Your task to perform on an android device: turn on bluetooth scan Image 0: 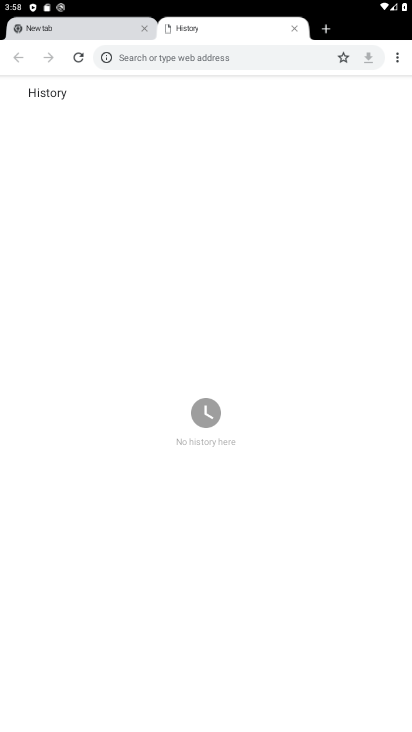
Step 0: press home button
Your task to perform on an android device: turn on bluetooth scan Image 1: 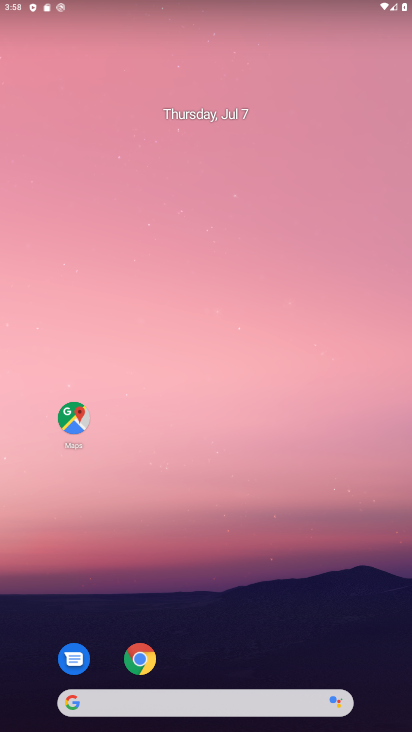
Step 1: drag from (221, 635) to (246, 0)
Your task to perform on an android device: turn on bluetooth scan Image 2: 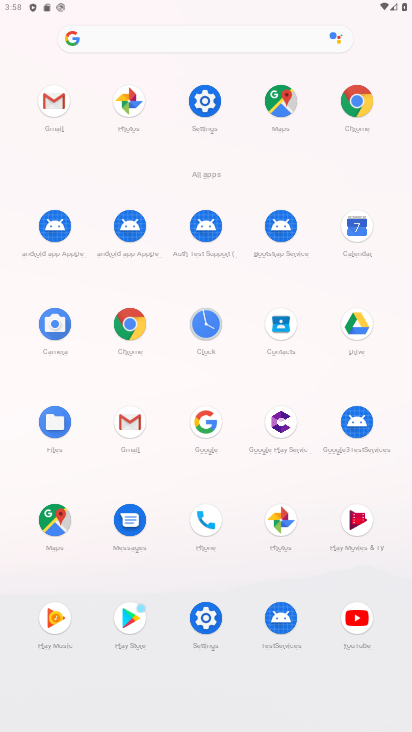
Step 2: click (215, 621)
Your task to perform on an android device: turn on bluetooth scan Image 3: 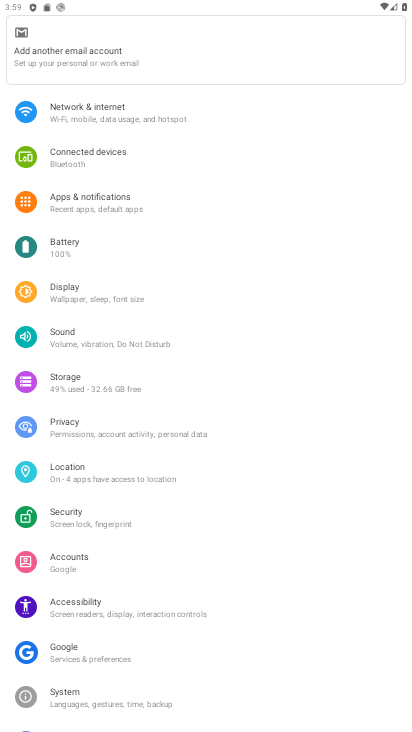
Step 3: click (117, 472)
Your task to perform on an android device: turn on bluetooth scan Image 4: 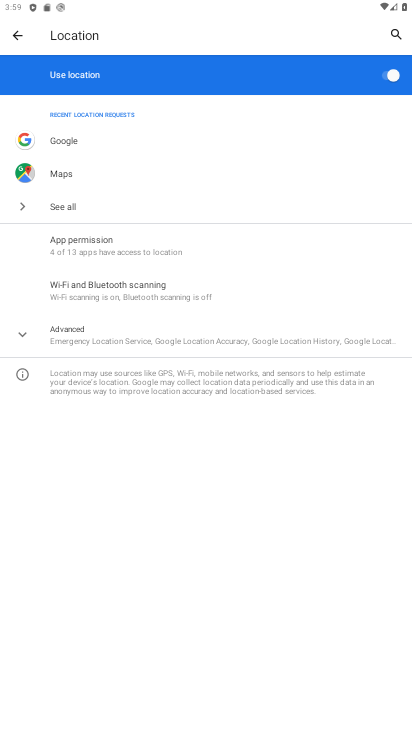
Step 4: click (155, 285)
Your task to perform on an android device: turn on bluetooth scan Image 5: 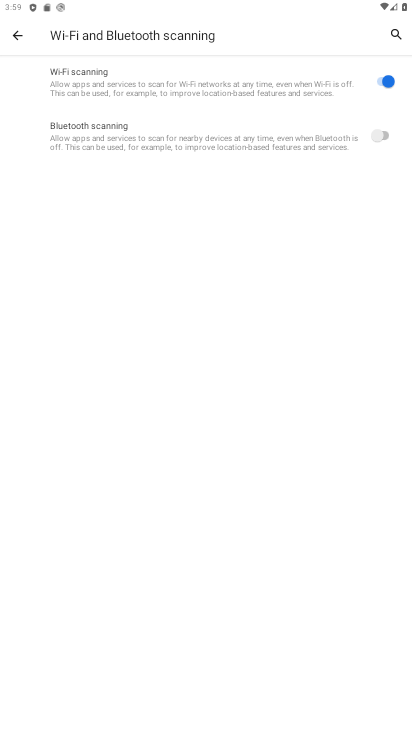
Step 5: click (393, 130)
Your task to perform on an android device: turn on bluetooth scan Image 6: 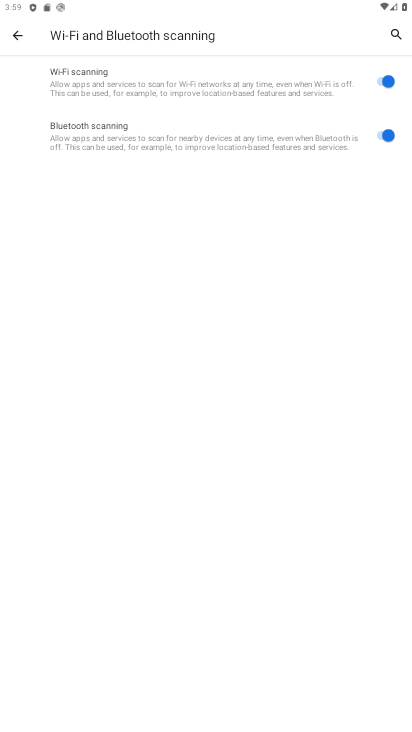
Step 6: task complete